Your task to perform on an android device: Is it going to rain today? Image 0: 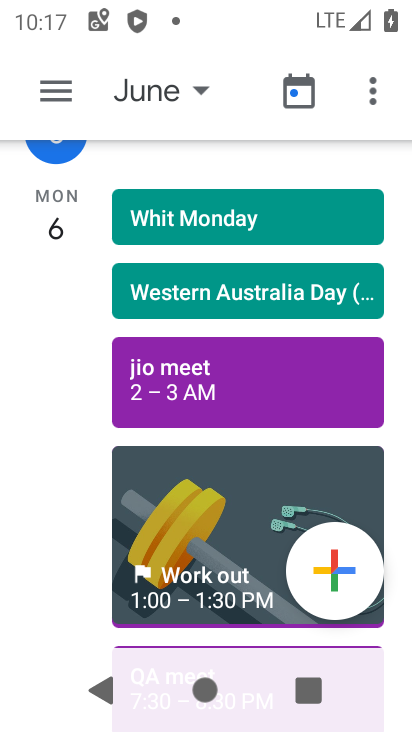
Step 0: press home button
Your task to perform on an android device: Is it going to rain today? Image 1: 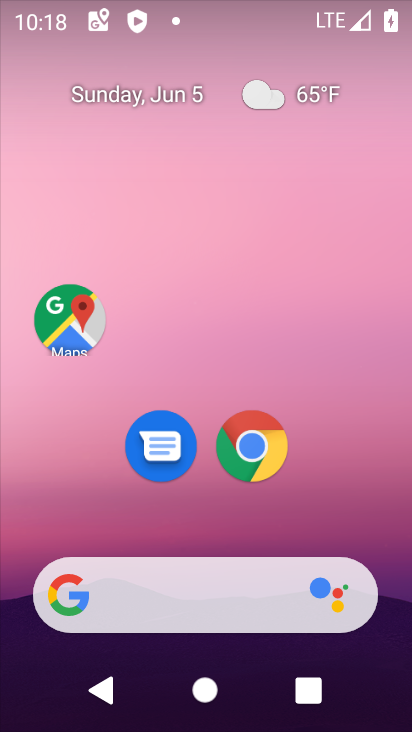
Step 1: drag from (238, 531) to (240, 276)
Your task to perform on an android device: Is it going to rain today? Image 2: 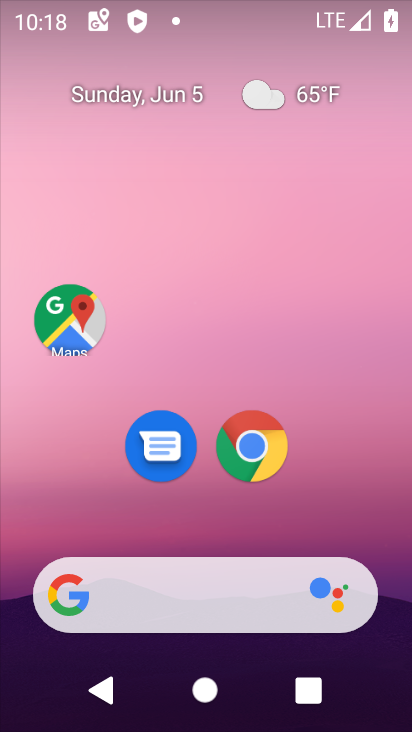
Step 2: drag from (211, 531) to (251, 141)
Your task to perform on an android device: Is it going to rain today? Image 3: 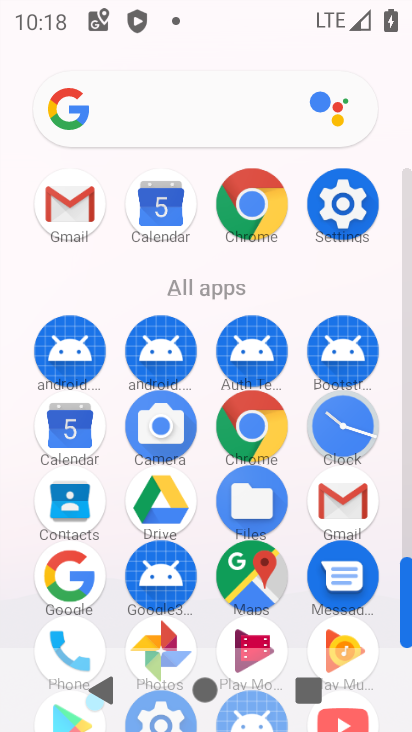
Step 3: click (66, 583)
Your task to perform on an android device: Is it going to rain today? Image 4: 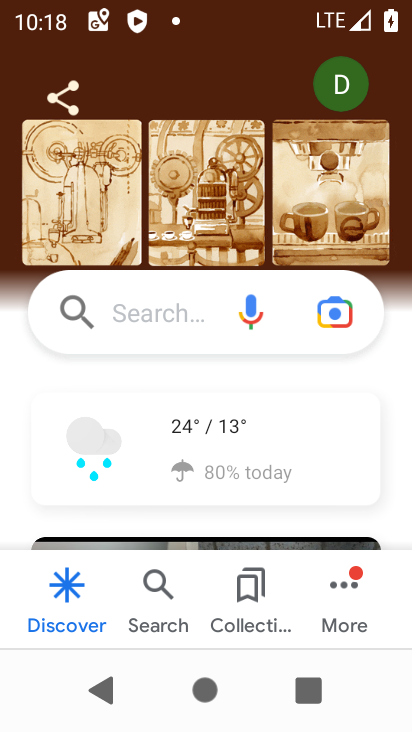
Step 4: click (167, 308)
Your task to perform on an android device: Is it going to rain today? Image 5: 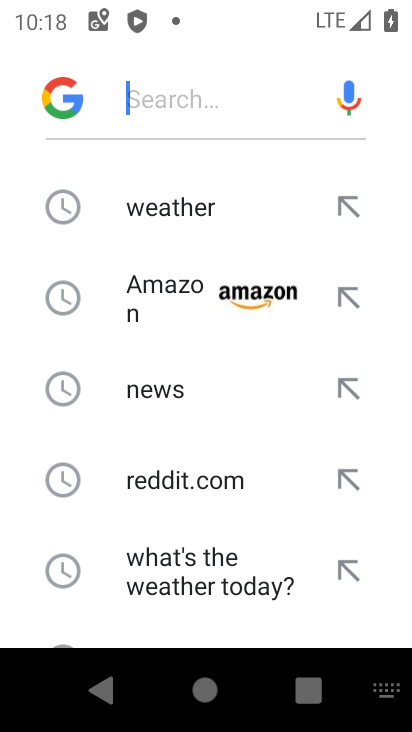
Step 5: click (176, 212)
Your task to perform on an android device: Is it going to rain today? Image 6: 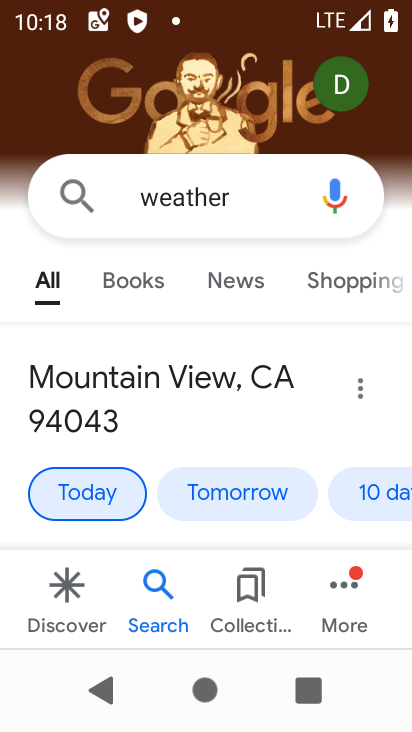
Step 6: task complete